Your task to perform on an android device: turn on priority inbox in the gmail app Image 0: 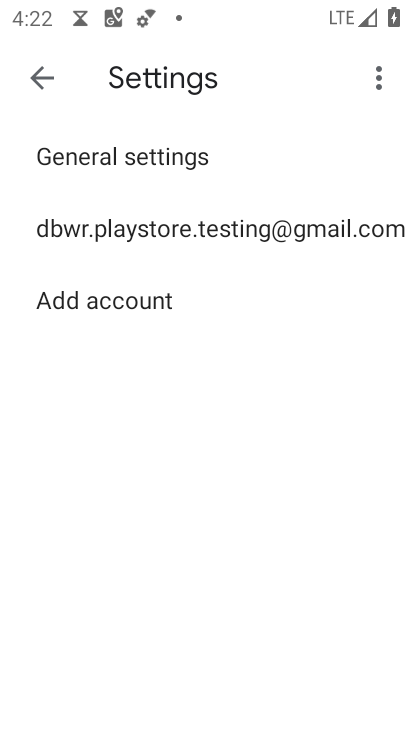
Step 0: press home button
Your task to perform on an android device: turn on priority inbox in the gmail app Image 1: 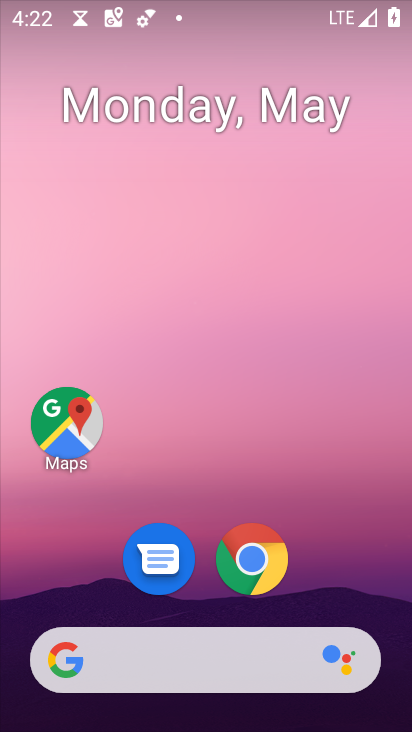
Step 1: drag from (340, 594) to (197, 3)
Your task to perform on an android device: turn on priority inbox in the gmail app Image 2: 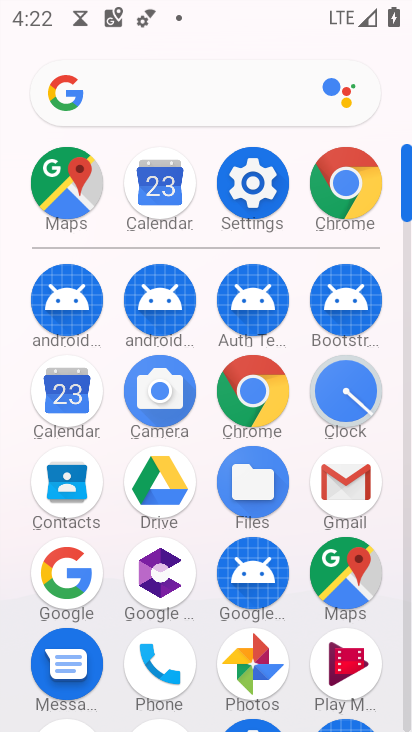
Step 2: click (351, 501)
Your task to perform on an android device: turn on priority inbox in the gmail app Image 3: 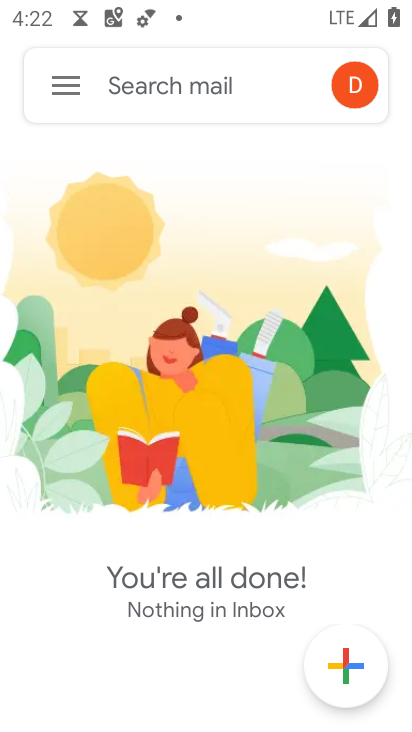
Step 3: click (64, 77)
Your task to perform on an android device: turn on priority inbox in the gmail app Image 4: 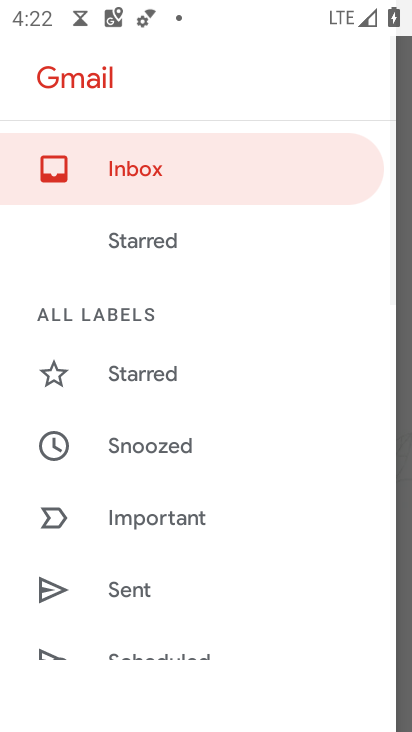
Step 4: drag from (165, 603) to (166, 169)
Your task to perform on an android device: turn on priority inbox in the gmail app Image 5: 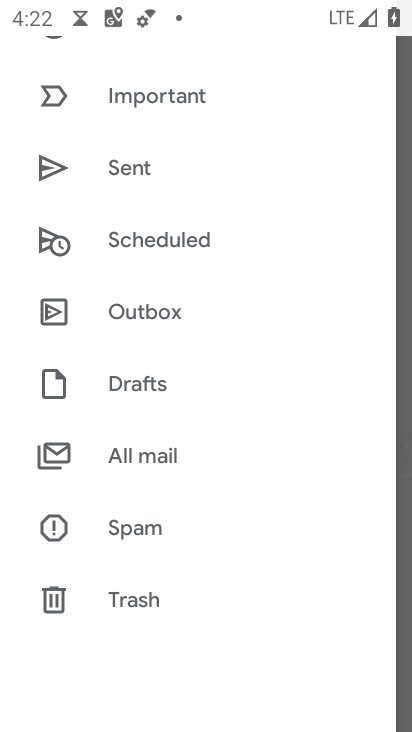
Step 5: drag from (180, 637) to (145, 216)
Your task to perform on an android device: turn on priority inbox in the gmail app Image 6: 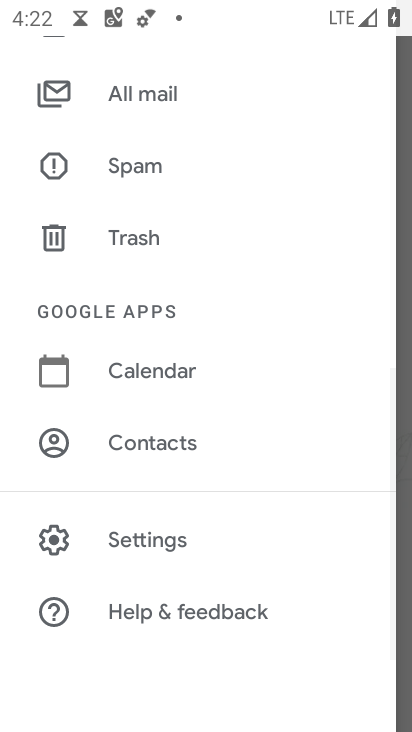
Step 6: click (166, 549)
Your task to perform on an android device: turn on priority inbox in the gmail app Image 7: 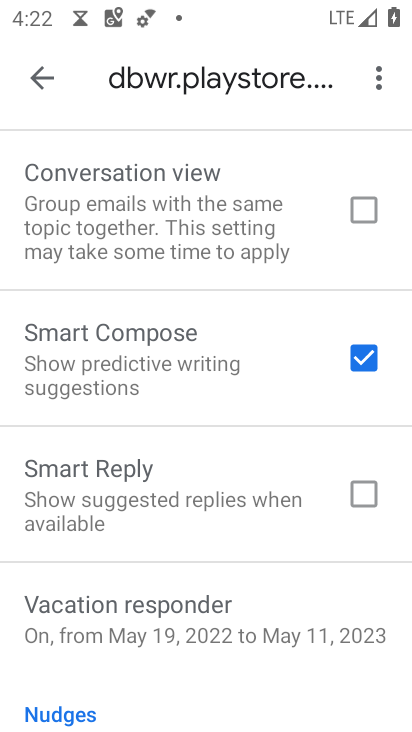
Step 7: drag from (184, 190) to (174, 731)
Your task to perform on an android device: turn on priority inbox in the gmail app Image 8: 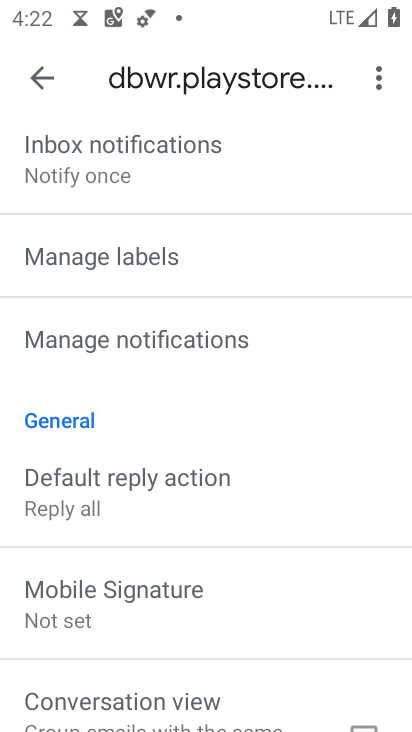
Step 8: drag from (166, 254) to (203, 709)
Your task to perform on an android device: turn on priority inbox in the gmail app Image 9: 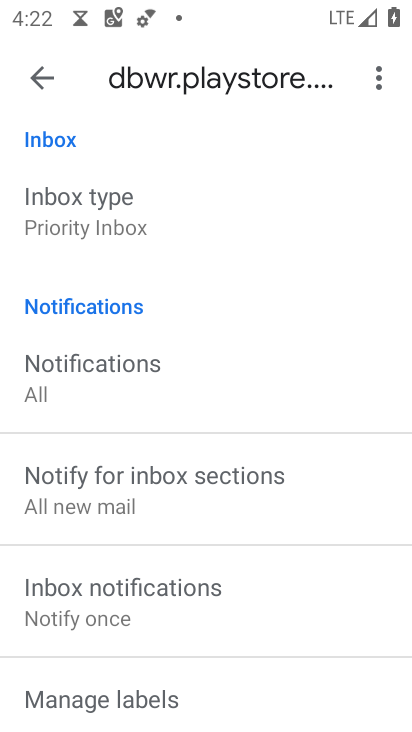
Step 9: drag from (124, 312) to (129, 717)
Your task to perform on an android device: turn on priority inbox in the gmail app Image 10: 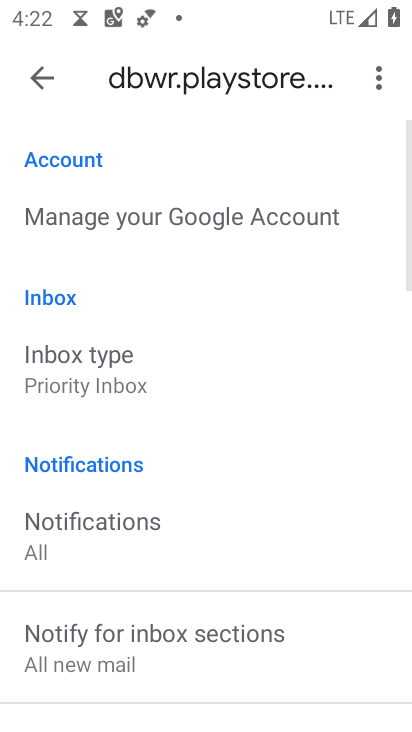
Step 10: click (98, 367)
Your task to perform on an android device: turn on priority inbox in the gmail app Image 11: 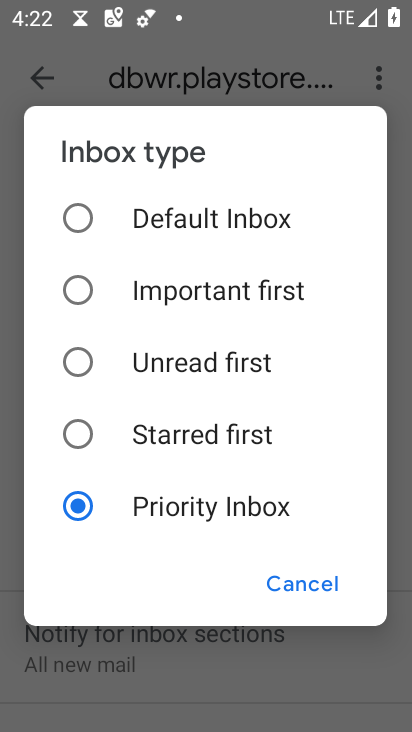
Step 11: task complete